Your task to perform on an android device: all mails in gmail Image 0: 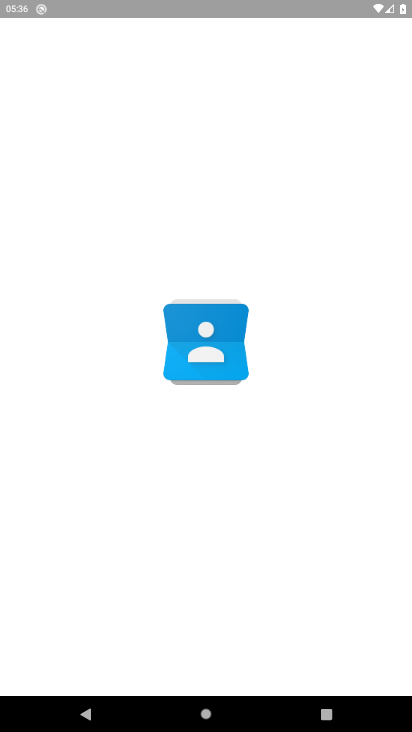
Step 0: press home button
Your task to perform on an android device: all mails in gmail Image 1: 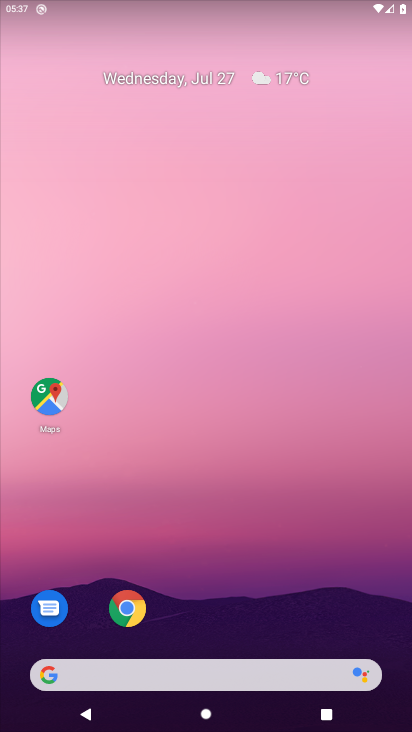
Step 1: drag from (205, 641) to (278, 140)
Your task to perform on an android device: all mails in gmail Image 2: 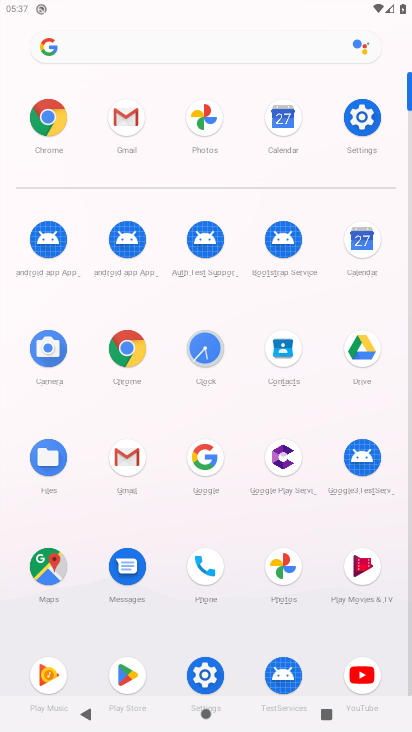
Step 2: click (128, 119)
Your task to perform on an android device: all mails in gmail Image 3: 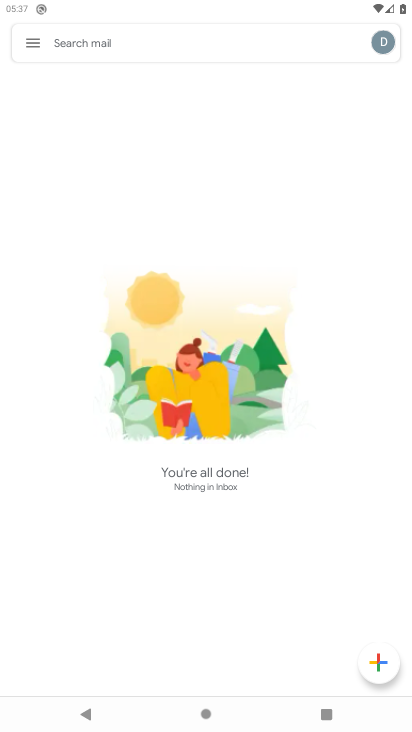
Step 3: click (35, 41)
Your task to perform on an android device: all mails in gmail Image 4: 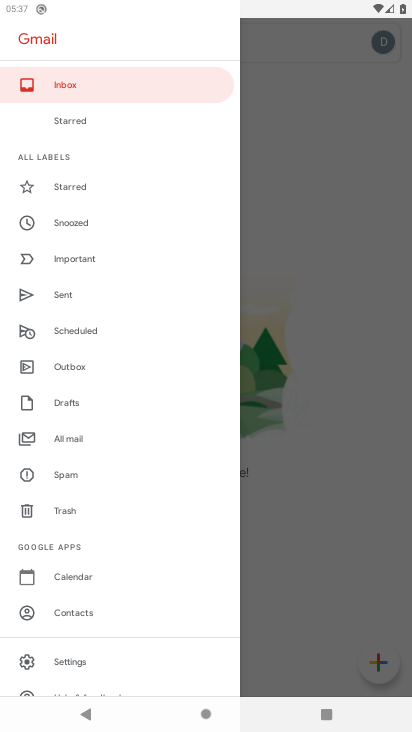
Step 4: click (67, 441)
Your task to perform on an android device: all mails in gmail Image 5: 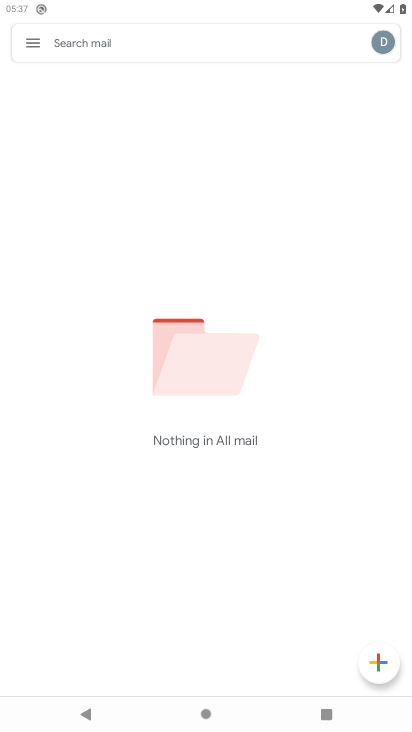
Step 5: task complete